Your task to perform on an android device: Open Youtube and go to the subscriptions tab Image 0: 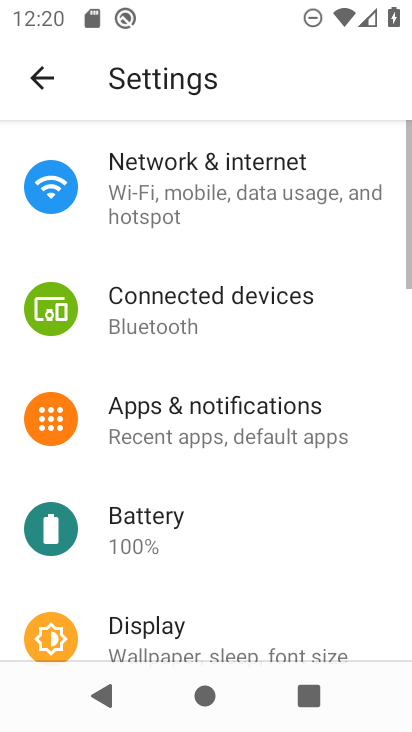
Step 0: press back button
Your task to perform on an android device: Open Youtube and go to the subscriptions tab Image 1: 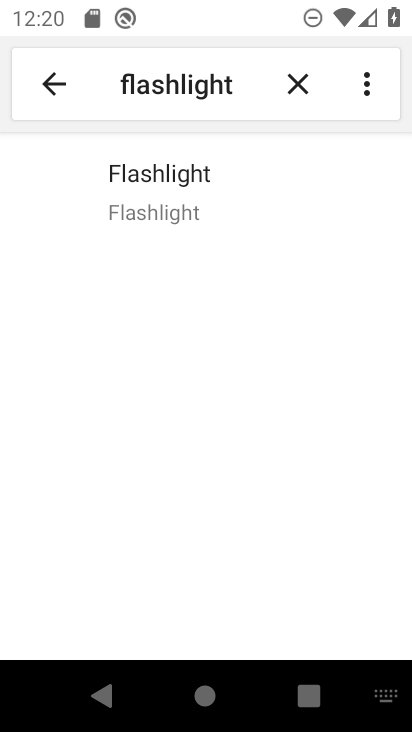
Step 1: press back button
Your task to perform on an android device: Open Youtube and go to the subscriptions tab Image 2: 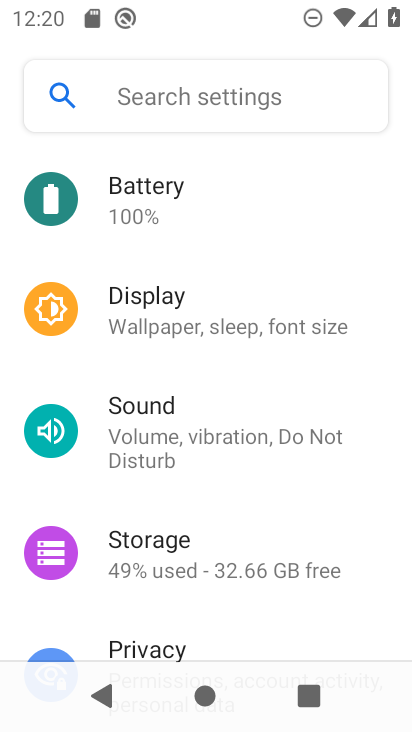
Step 2: press back button
Your task to perform on an android device: Open Youtube and go to the subscriptions tab Image 3: 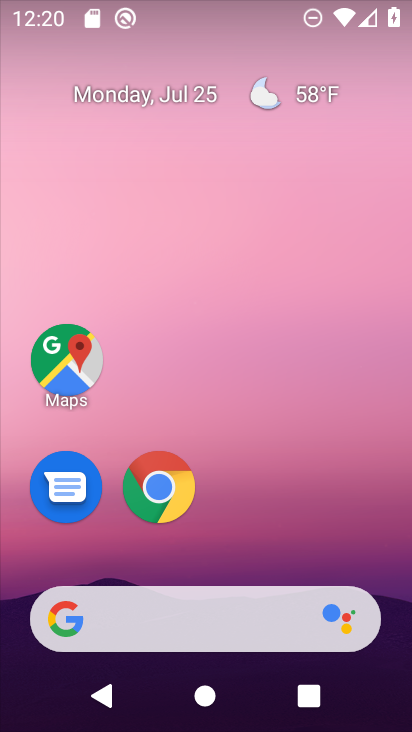
Step 3: drag from (250, 558) to (328, 4)
Your task to perform on an android device: Open Youtube and go to the subscriptions tab Image 4: 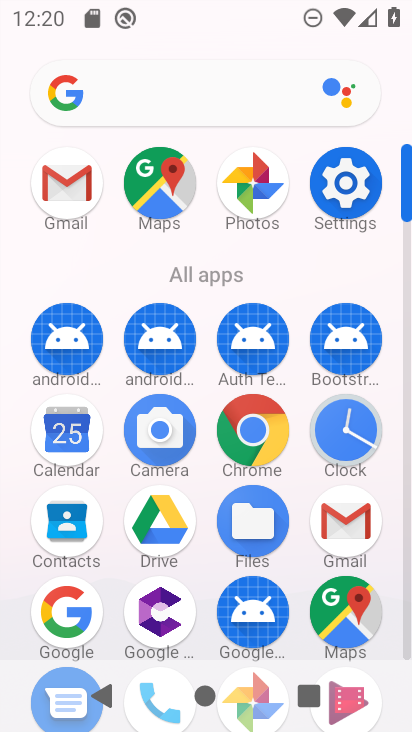
Step 4: drag from (196, 627) to (303, 56)
Your task to perform on an android device: Open Youtube and go to the subscriptions tab Image 5: 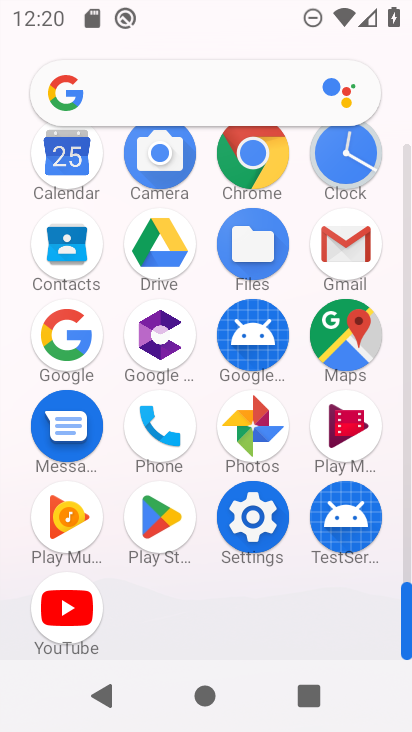
Step 5: click (66, 629)
Your task to perform on an android device: Open Youtube and go to the subscriptions tab Image 6: 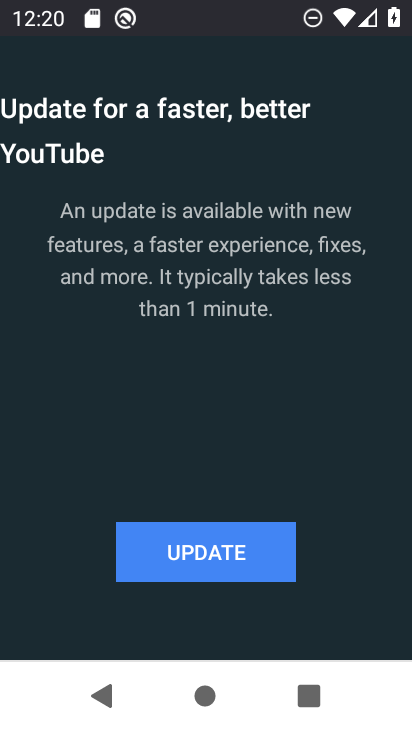
Step 6: click (209, 543)
Your task to perform on an android device: Open Youtube and go to the subscriptions tab Image 7: 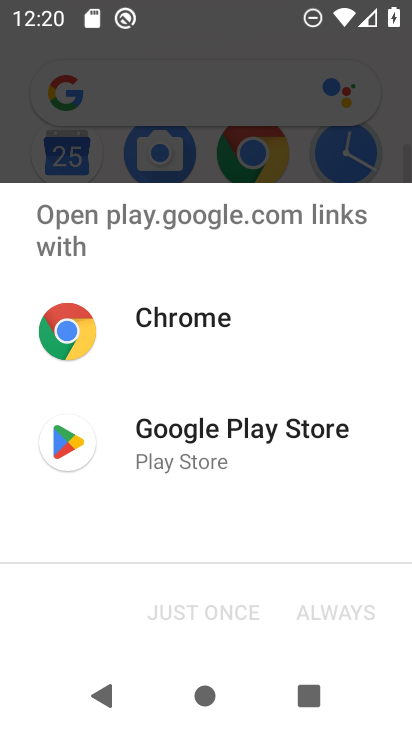
Step 7: click (219, 450)
Your task to perform on an android device: Open Youtube and go to the subscriptions tab Image 8: 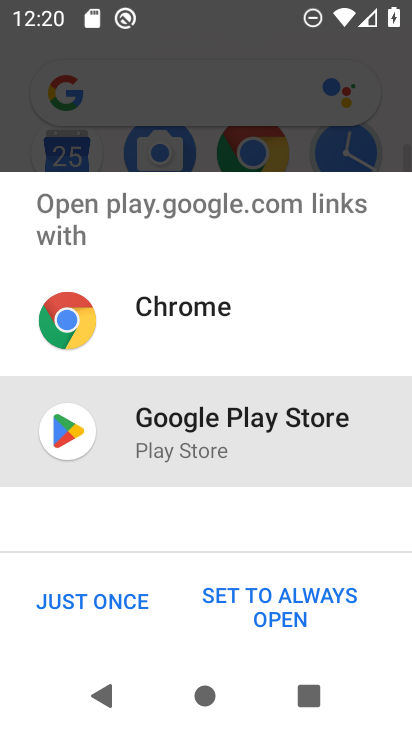
Step 8: click (90, 597)
Your task to perform on an android device: Open Youtube and go to the subscriptions tab Image 9: 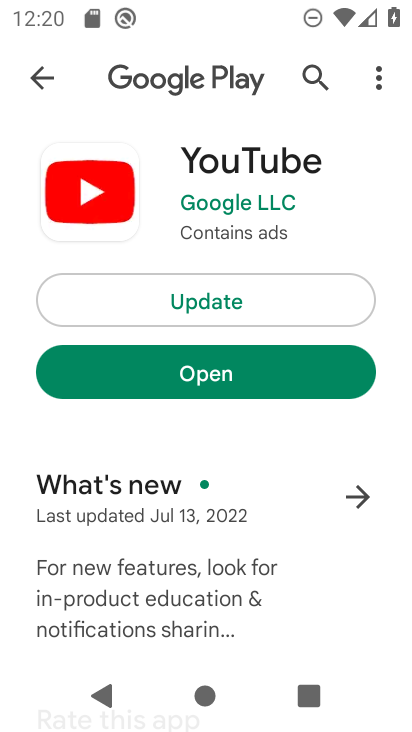
Step 9: click (275, 308)
Your task to perform on an android device: Open Youtube and go to the subscriptions tab Image 10: 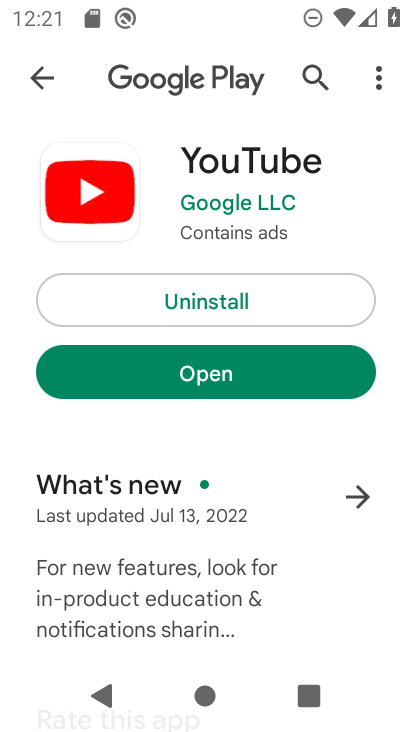
Step 10: click (198, 373)
Your task to perform on an android device: Open Youtube and go to the subscriptions tab Image 11: 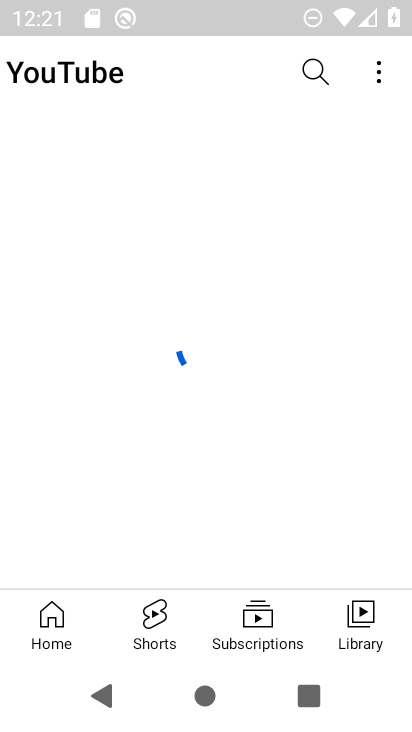
Step 11: click (264, 623)
Your task to perform on an android device: Open Youtube and go to the subscriptions tab Image 12: 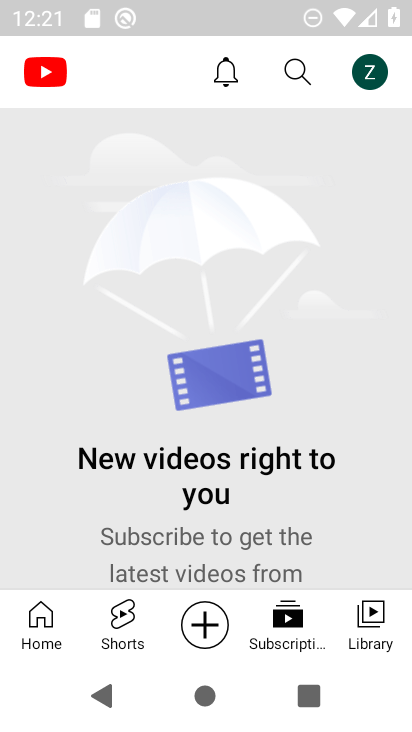
Step 12: task complete